Your task to perform on an android device: open a new tab in the chrome app Image 0: 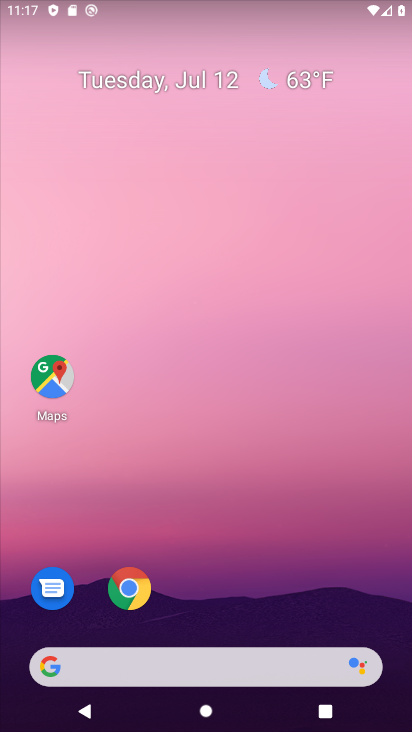
Step 0: click (124, 591)
Your task to perform on an android device: open a new tab in the chrome app Image 1: 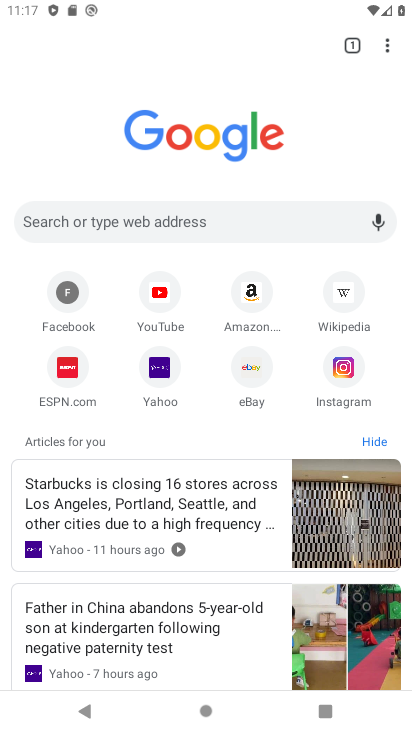
Step 1: click (110, 216)
Your task to perform on an android device: open a new tab in the chrome app Image 2: 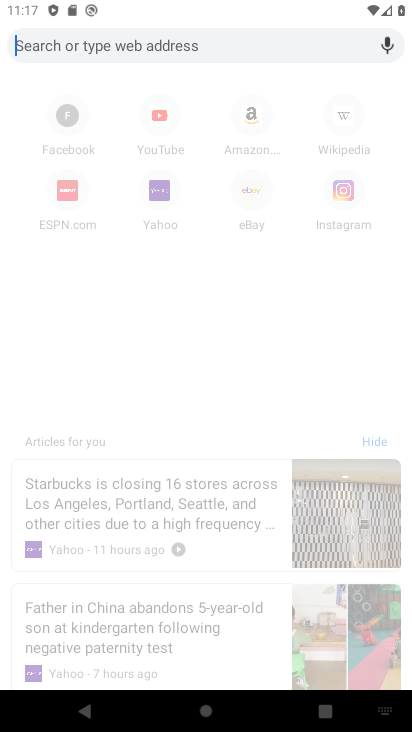
Step 2: click (162, 62)
Your task to perform on an android device: open a new tab in the chrome app Image 3: 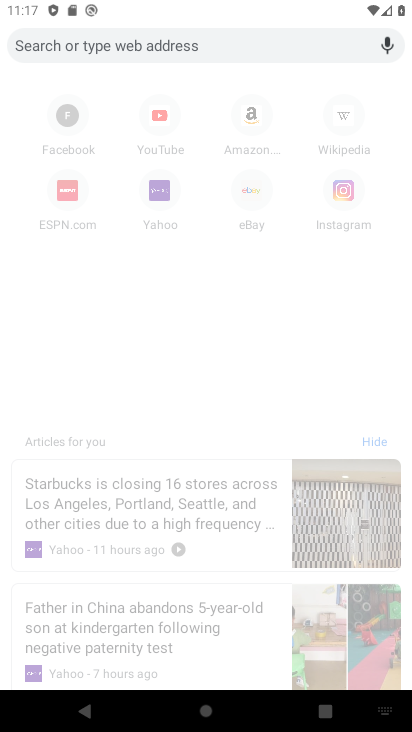
Step 3: click (162, 50)
Your task to perform on an android device: open a new tab in the chrome app Image 4: 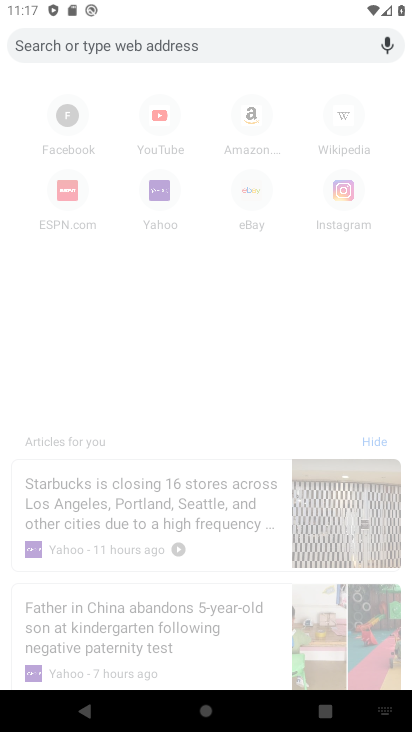
Step 4: click (326, 49)
Your task to perform on an android device: open a new tab in the chrome app Image 5: 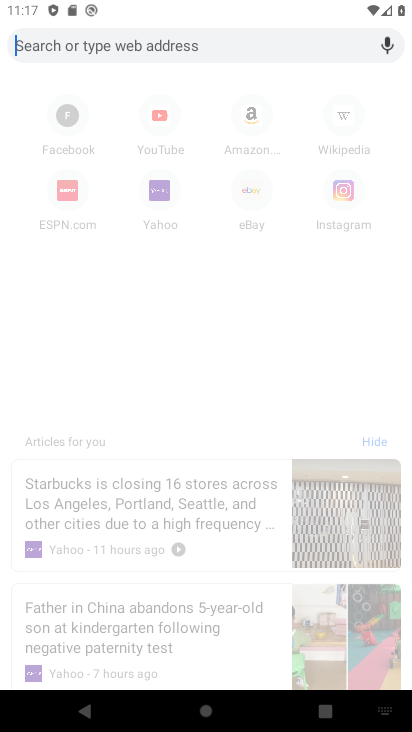
Step 5: click (304, 100)
Your task to perform on an android device: open a new tab in the chrome app Image 6: 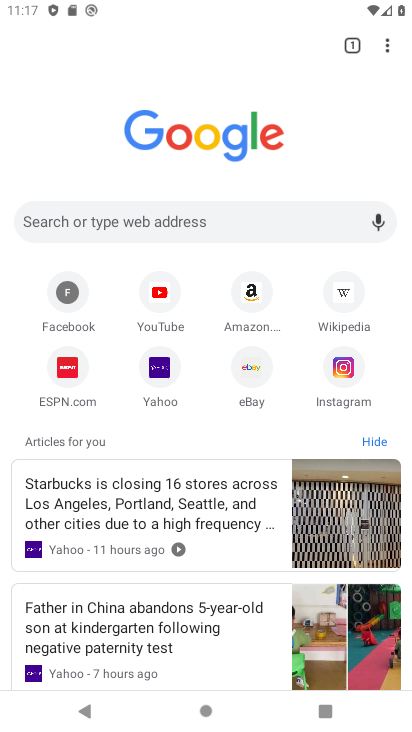
Step 6: click (381, 43)
Your task to perform on an android device: open a new tab in the chrome app Image 7: 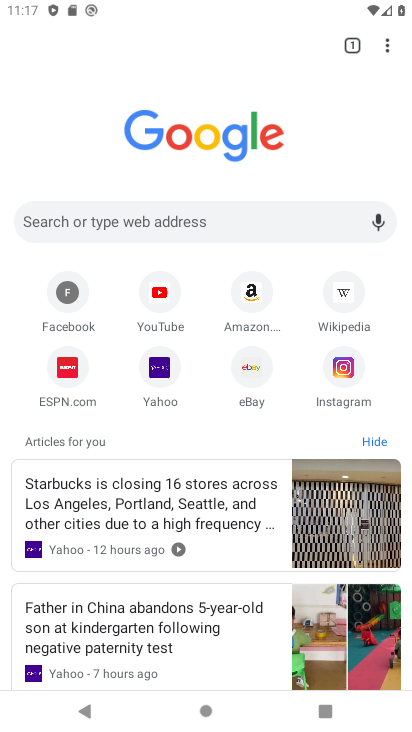
Step 7: click (387, 41)
Your task to perform on an android device: open a new tab in the chrome app Image 8: 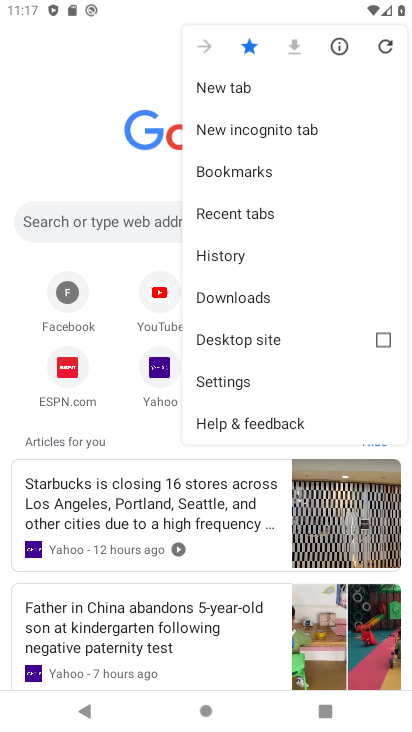
Step 8: click (250, 90)
Your task to perform on an android device: open a new tab in the chrome app Image 9: 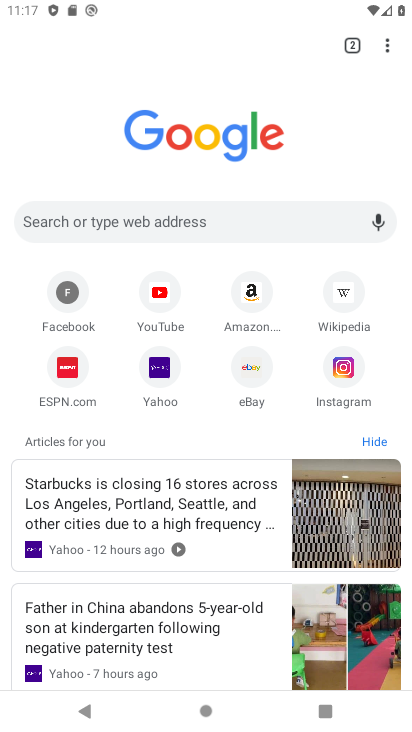
Step 9: task complete